Your task to perform on an android device: move a message to another label in the gmail app Image 0: 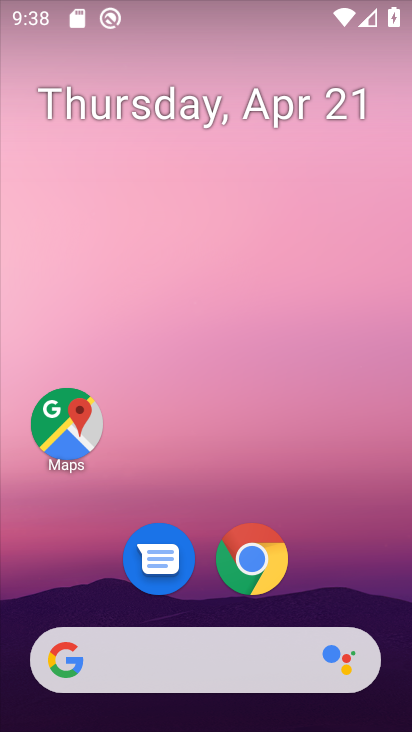
Step 0: drag from (340, 531) to (362, 135)
Your task to perform on an android device: move a message to another label in the gmail app Image 1: 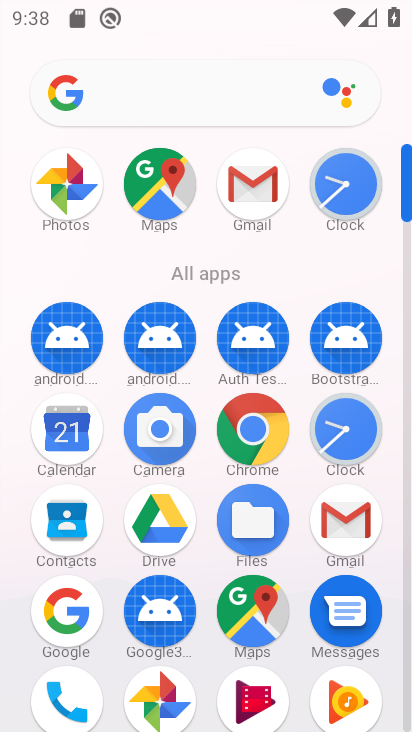
Step 1: drag from (336, 583) to (322, 272)
Your task to perform on an android device: move a message to another label in the gmail app Image 2: 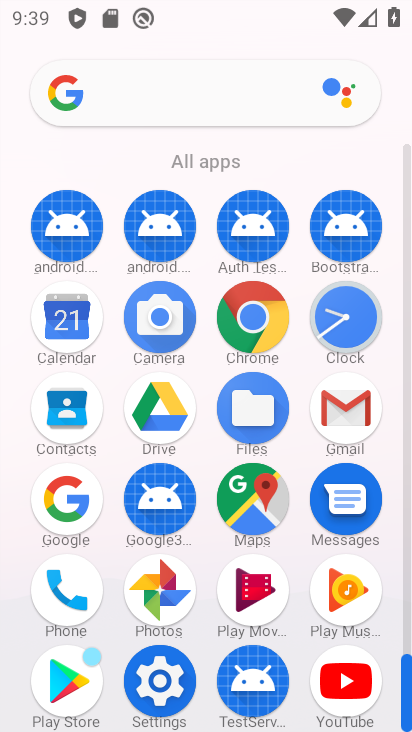
Step 2: click (334, 434)
Your task to perform on an android device: move a message to another label in the gmail app Image 3: 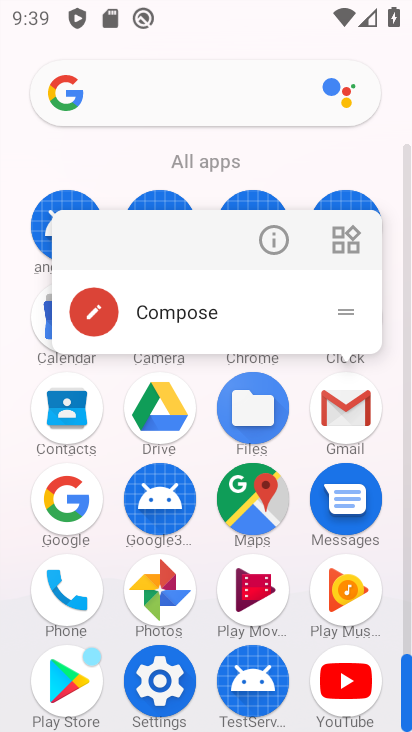
Step 3: click (344, 437)
Your task to perform on an android device: move a message to another label in the gmail app Image 4: 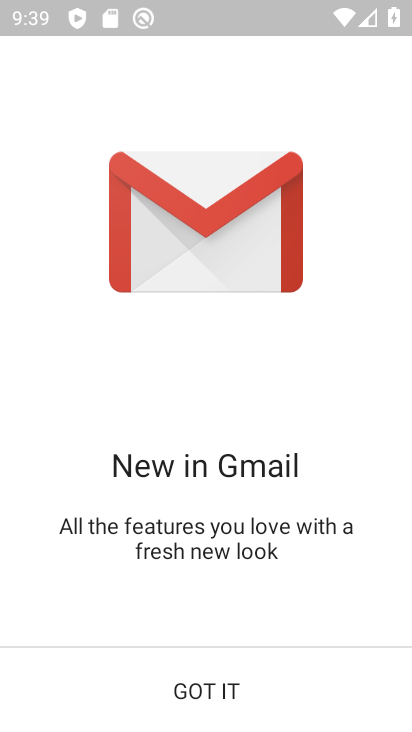
Step 4: click (223, 689)
Your task to perform on an android device: move a message to another label in the gmail app Image 5: 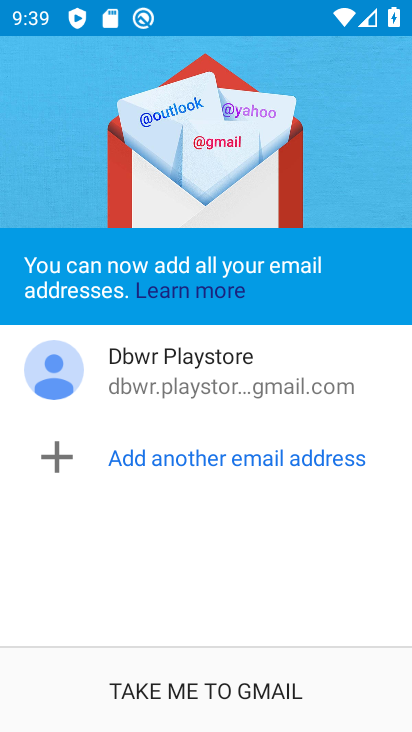
Step 5: click (240, 703)
Your task to perform on an android device: move a message to another label in the gmail app Image 6: 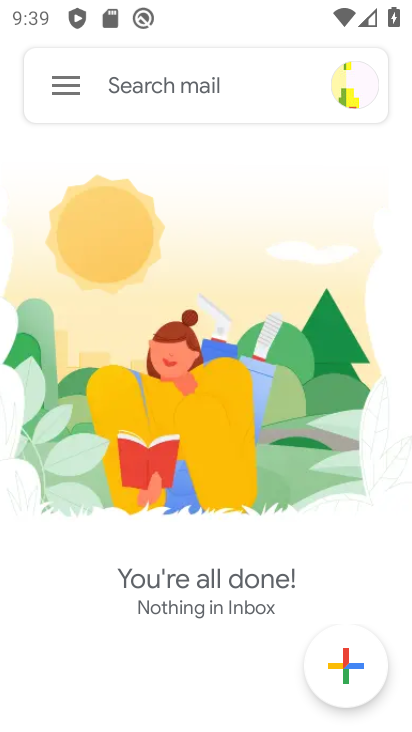
Step 6: click (73, 78)
Your task to perform on an android device: move a message to another label in the gmail app Image 7: 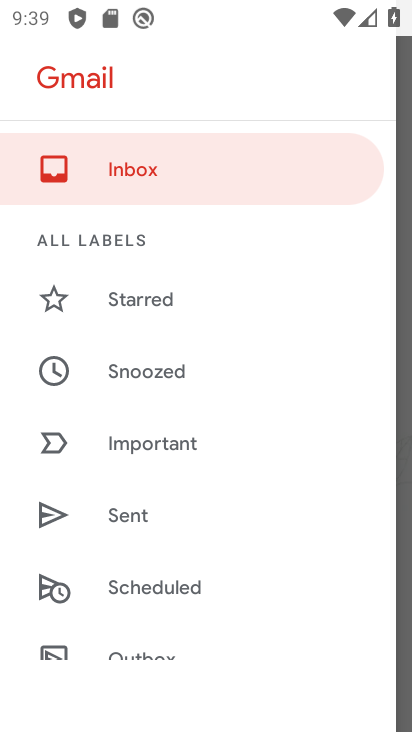
Step 7: click (131, 169)
Your task to perform on an android device: move a message to another label in the gmail app Image 8: 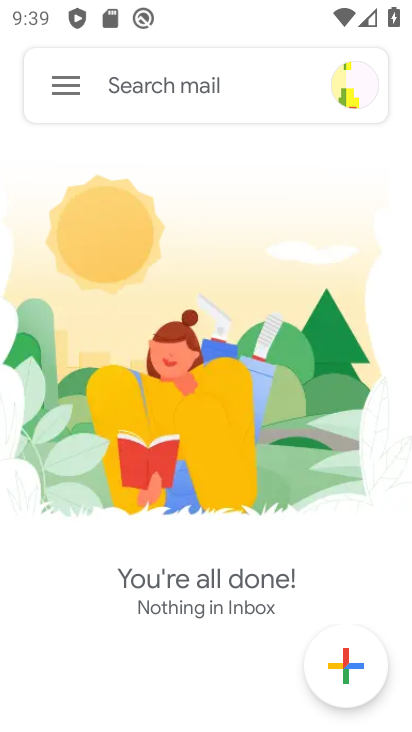
Step 8: task complete